Your task to perform on an android device: Search for pizza restaurants on Maps Image 0: 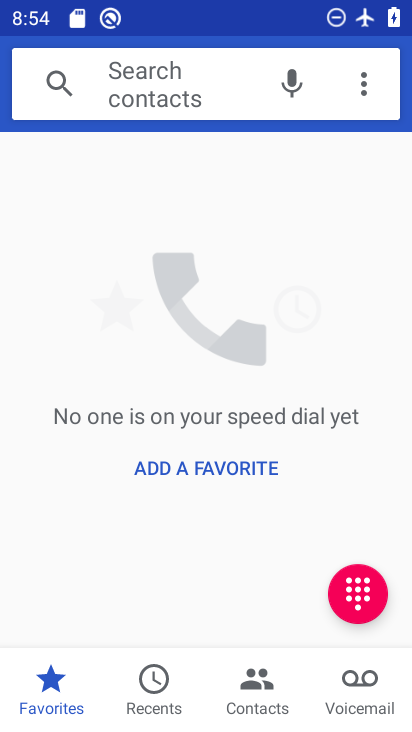
Step 0: press back button
Your task to perform on an android device: Search for pizza restaurants on Maps Image 1: 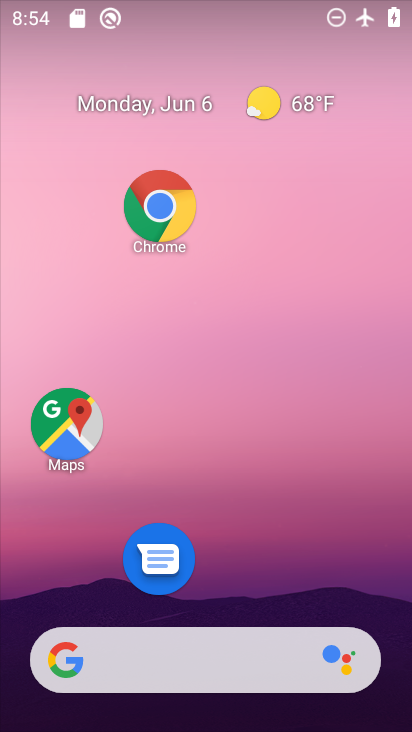
Step 1: drag from (240, 572) to (217, 134)
Your task to perform on an android device: Search for pizza restaurants on Maps Image 2: 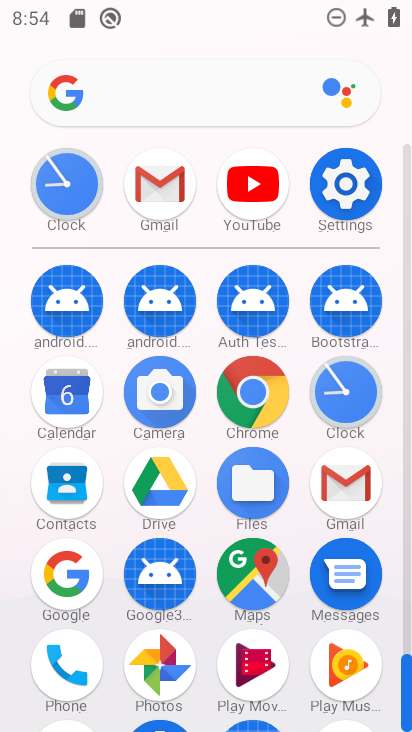
Step 2: click (242, 571)
Your task to perform on an android device: Search for pizza restaurants on Maps Image 3: 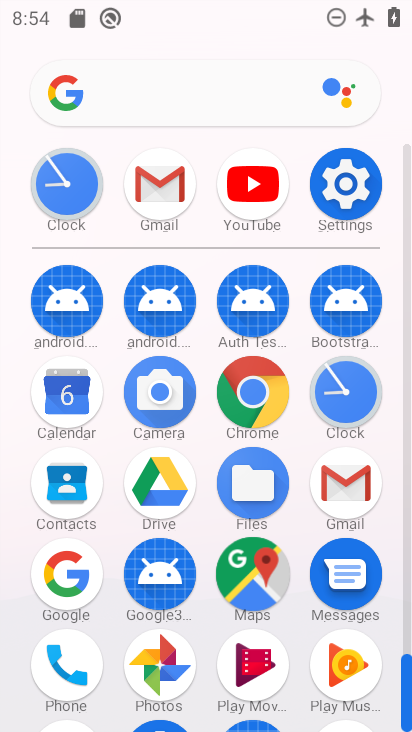
Step 3: click (242, 571)
Your task to perform on an android device: Search for pizza restaurants on Maps Image 4: 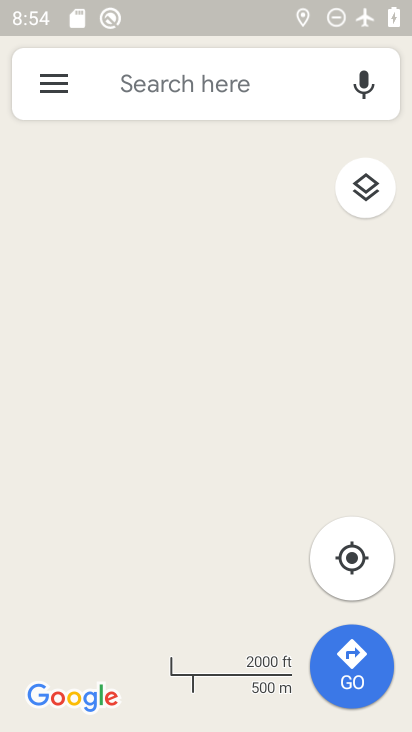
Step 4: click (119, 72)
Your task to perform on an android device: Search for pizza restaurants on Maps Image 5: 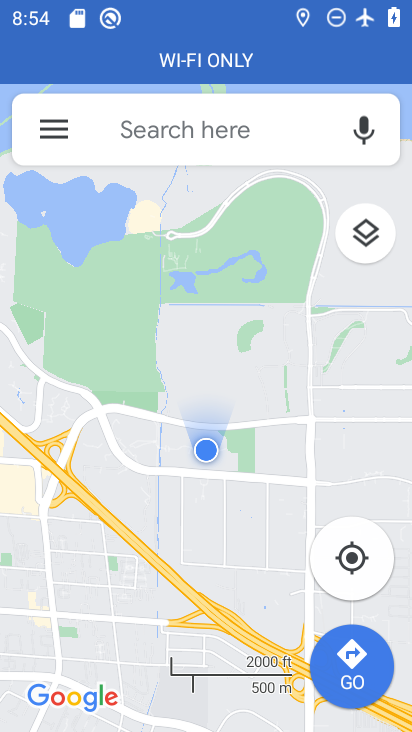
Step 5: click (125, 83)
Your task to perform on an android device: Search for pizza restaurants on Maps Image 6: 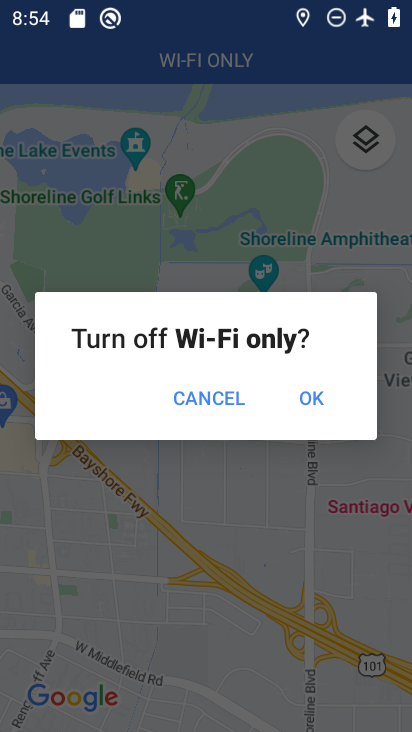
Step 6: click (222, 388)
Your task to perform on an android device: Search for pizza restaurants on Maps Image 7: 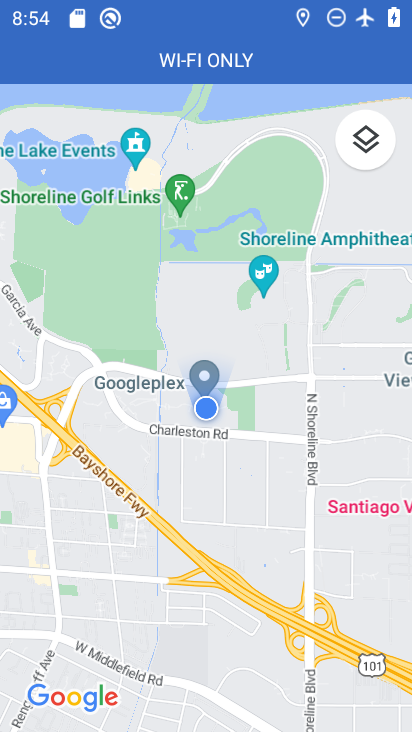
Step 7: drag from (110, 134) to (178, 518)
Your task to perform on an android device: Search for pizza restaurants on Maps Image 8: 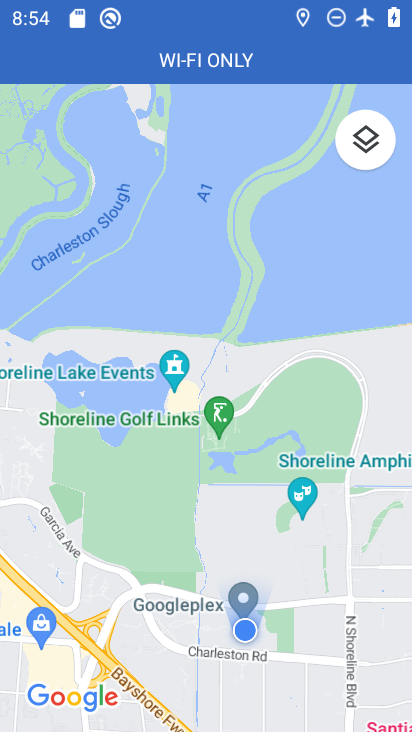
Step 8: drag from (102, 155) to (144, 383)
Your task to perform on an android device: Search for pizza restaurants on Maps Image 9: 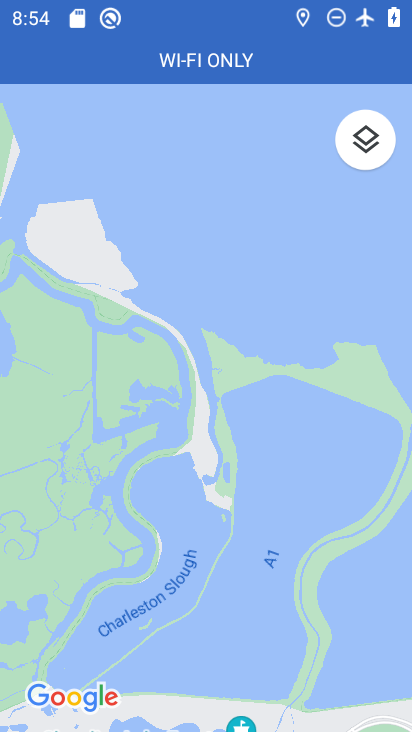
Step 9: drag from (158, 195) to (216, 636)
Your task to perform on an android device: Search for pizza restaurants on Maps Image 10: 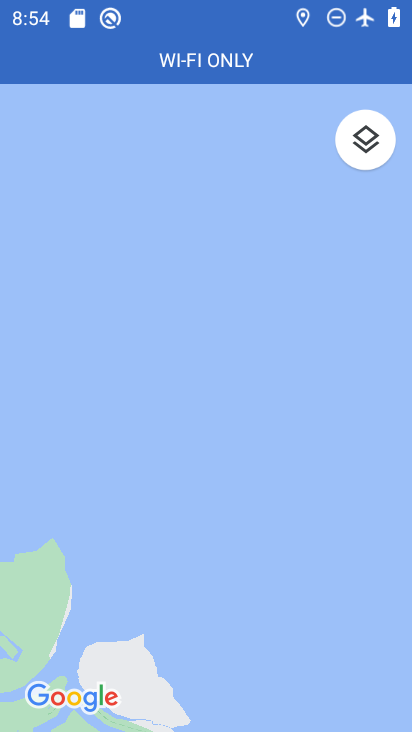
Step 10: drag from (274, 251) to (362, 539)
Your task to perform on an android device: Search for pizza restaurants on Maps Image 11: 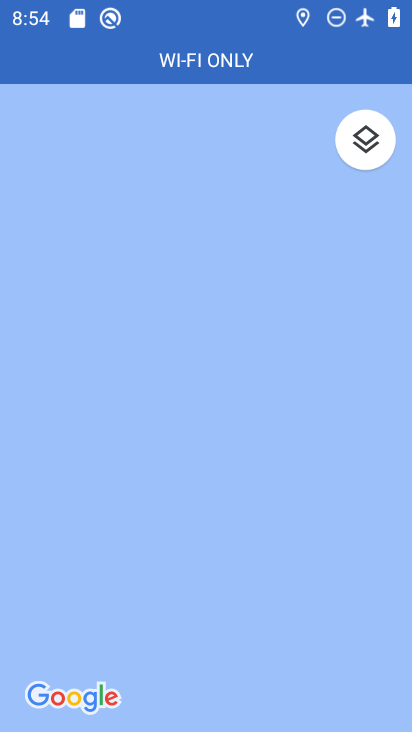
Step 11: press back button
Your task to perform on an android device: Search for pizza restaurants on Maps Image 12: 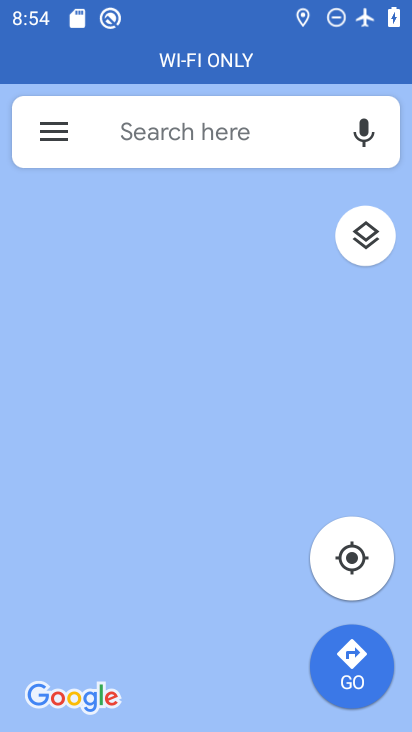
Step 12: click (136, 127)
Your task to perform on an android device: Search for pizza restaurants on Maps Image 13: 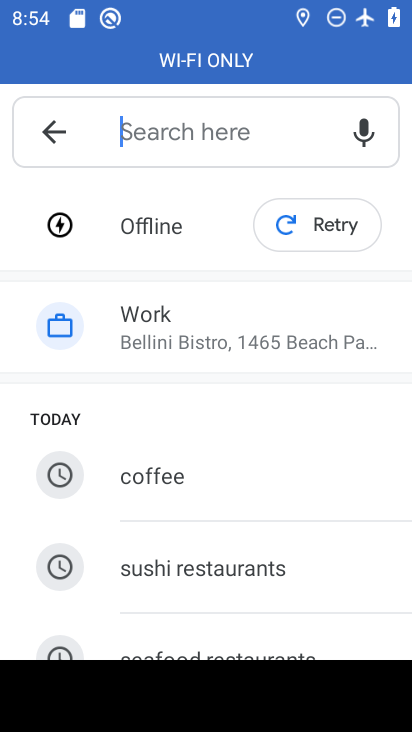
Step 13: type "pizza restaurants"
Your task to perform on an android device: Search for pizza restaurants on Maps Image 14: 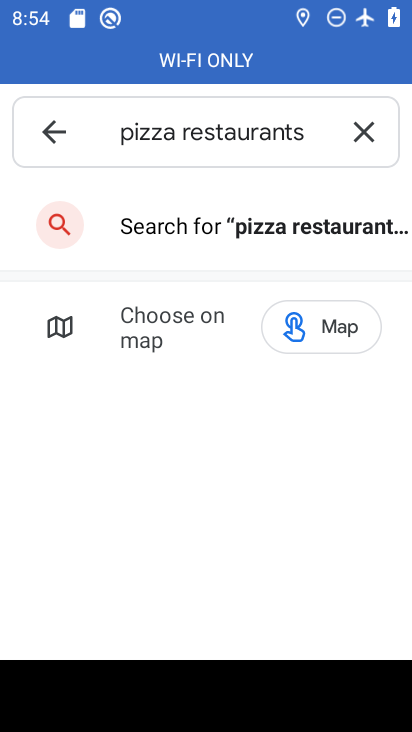
Step 14: click (310, 240)
Your task to perform on an android device: Search for pizza restaurants on Maps Image 15: 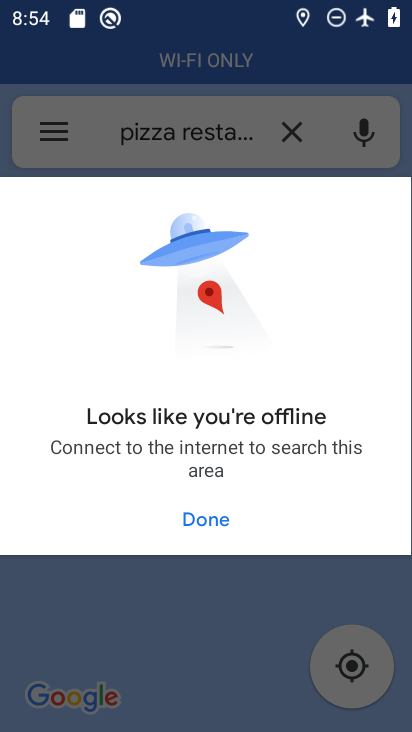
Step 15: click (223, 506)
Your task to perform on an android device: Search for pizza restaurants on Maps Image 16: 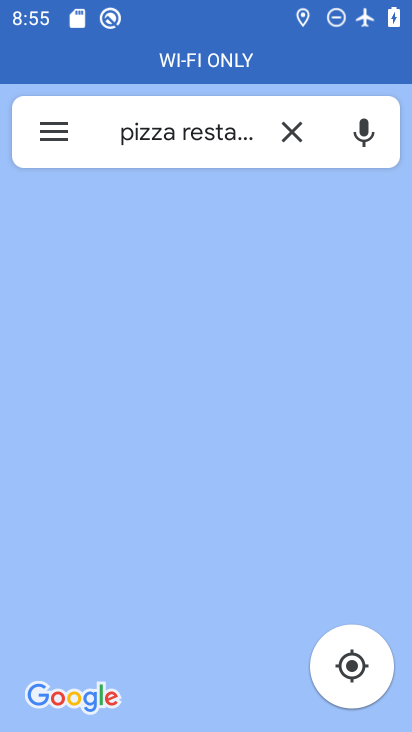
Step 16: task complete